Your task to perform on an android device: move an email to a new category in the gmail app Image 0: 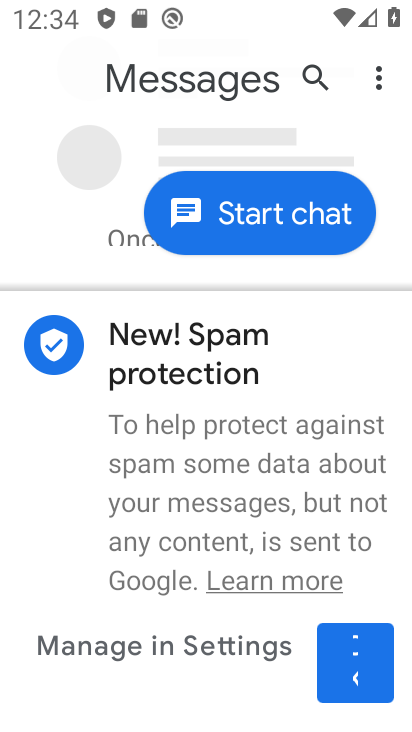
Step 0: press back button
Your task to perform on an android device: move an email to a new category in the gmail app Image 1: 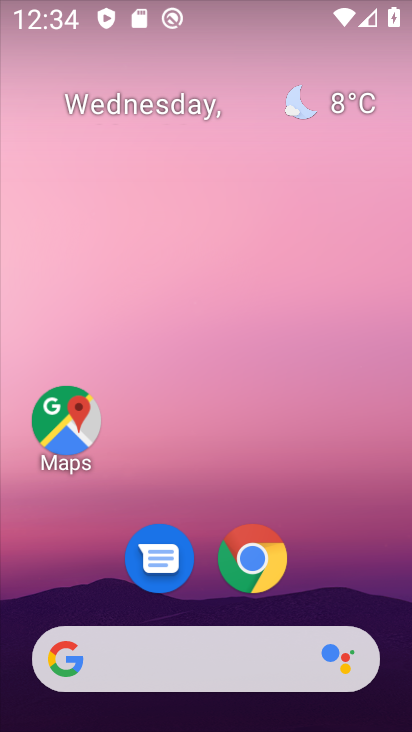
Step 1: drag from (328, 515) to (260, 4)
Your task to perform on an android device: move an email to a new category in the gmail app Image 2: 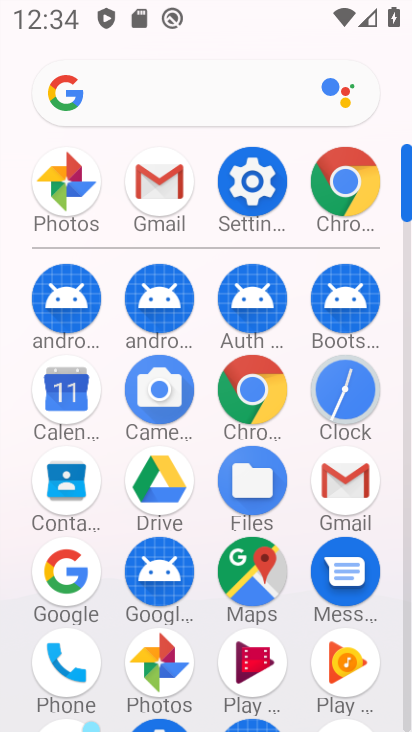
Step 2: click (344, 477)
Your task to perform on an android device: move an email to a new category in the gmail app Image 3: 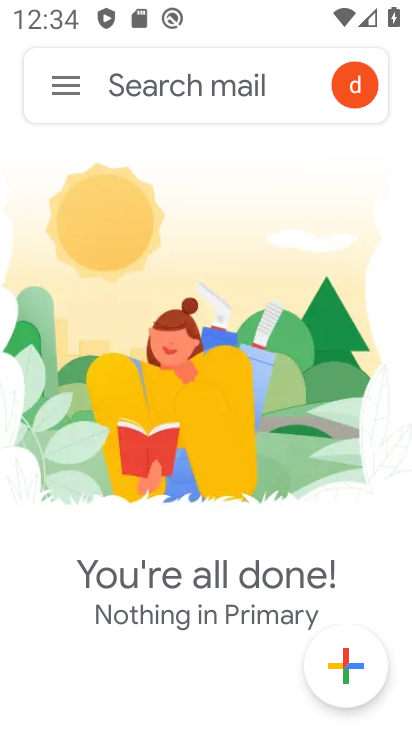
Step 3: click (68, 89)
Your task to perform on an android device: move an email to a new category in the gmail app Image 4: 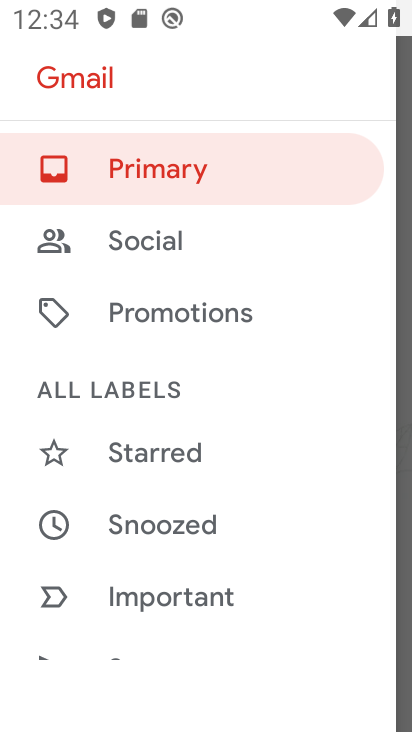
Step 4: drag from (271, 611) to (314, 160)
Your task to perform on an android device: move an email to a new category in the gmail app Image 5: 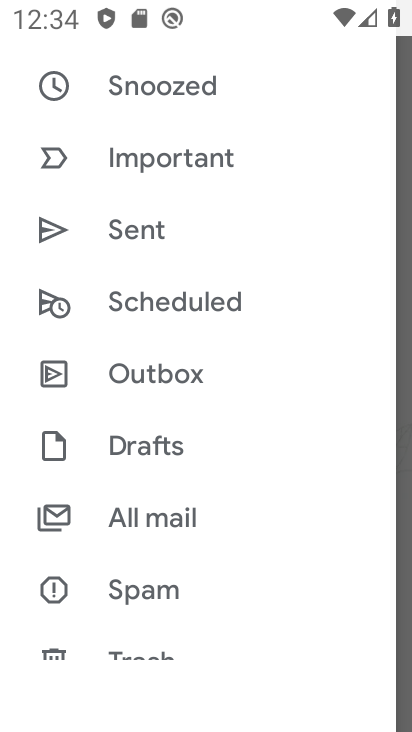
Step 5: drag from (250, 563) to (272, 114)
Your task to perform on an android device: move an email to a new category in the gmail app Image 6: 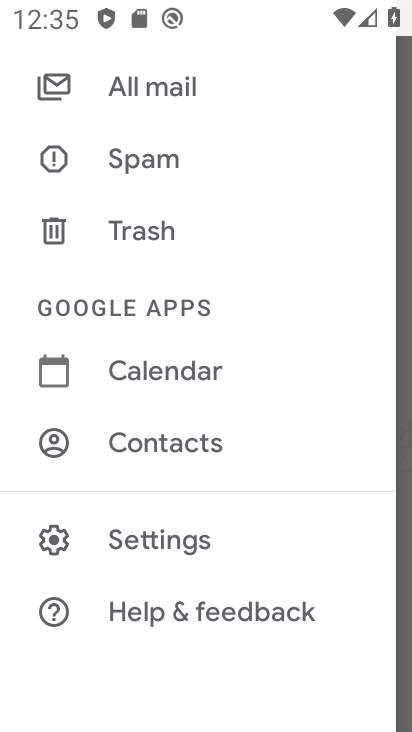
Step 6: click (182, 81)
Your task to perform on an android device: move an email to a new category in the gmail app Image 7: 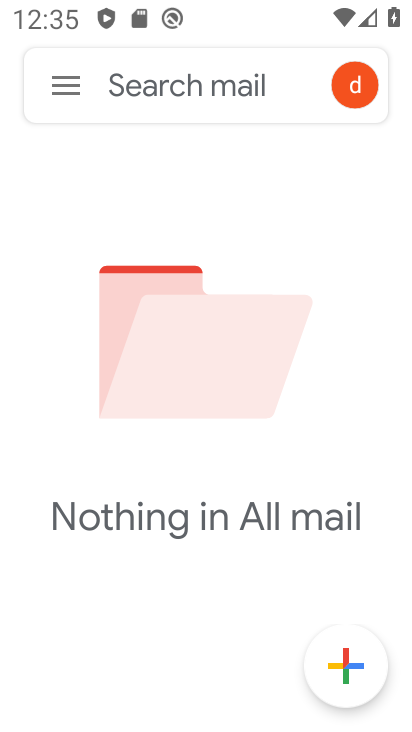
Step 7: click (61, 92)
Your task to perform on an android device: move an email to a new category in the gmail app Image 8: 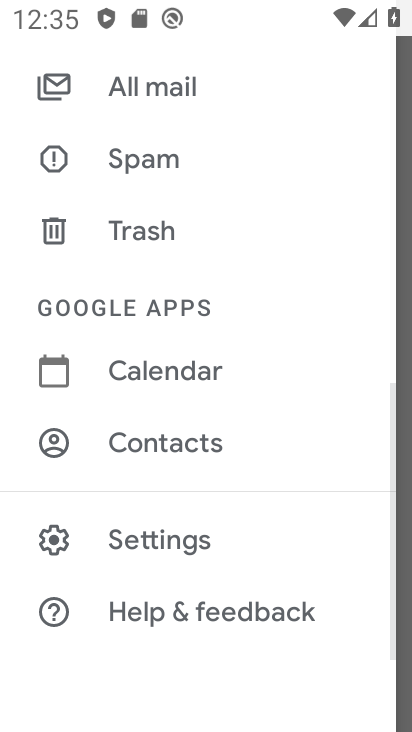
Step 8: click (188, 79)
Your task to perform on an android device: move an email to a new category in the gmail app Image 9: 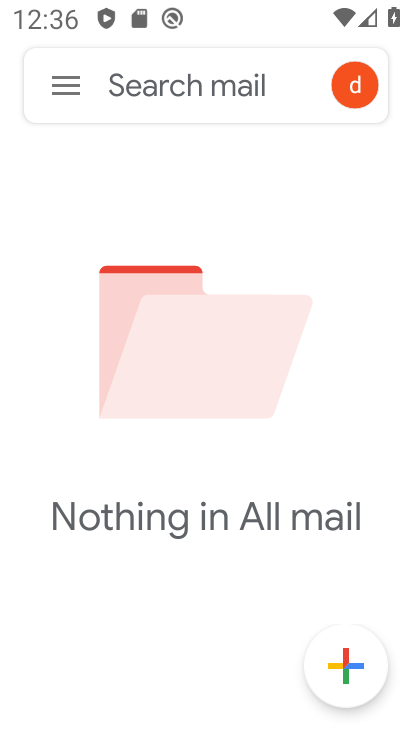
Step 9: task complete